Your task to perform on an android device: Search for "razer kraken" on bestbuy.com, select the first entry, add it to the cart, then select checkout. Image 0: 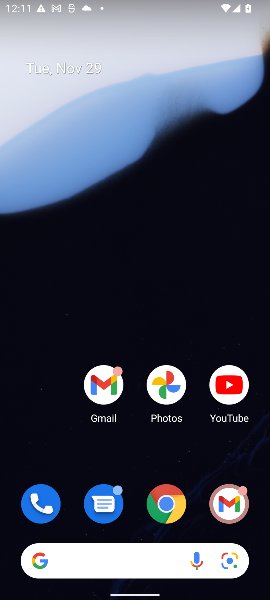
Step 0: click (164, 505)
Your task to perform on an android device: Search for "razer kraken" on bestbuy.com, select the first entry, add it to the cart, then select checkout. Image 1: 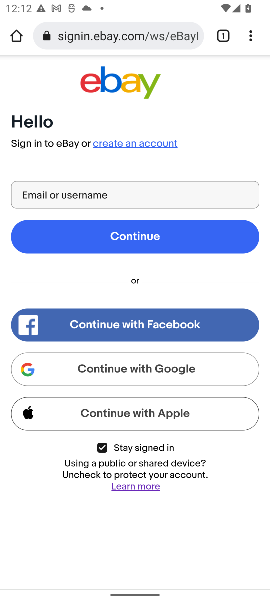
Step 1: click (117, 35)
Your task to perform on an android device: Search for "razer kraken" on bestbuy.com, select the first entry, add it to the cart, then select checkout. Image 2: 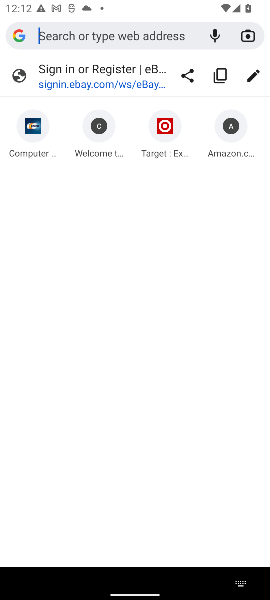
Step 2: type "bestbuy.com"
Your task to perform on an android device: Search for "razer kraken" on bestbuy.com, select the first entry, add it to the cart, then select checkout. Image 3: 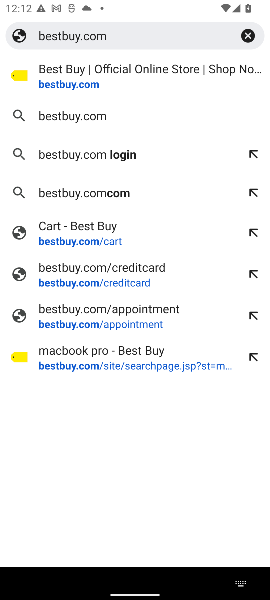
Step 3: click (67, 80)
Your task to perform on an android device: Search for "razer kraken" on bestbuy.com, select the first entry, add it to the cart, then select checkout. Image 4: 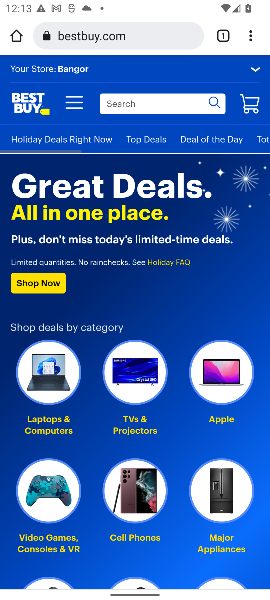
Step 4: click (114, 100)
Your task to perform on an android device: Search for "razer kraken" on bestbuy.com, select the first entry, add it to the cart, then select checkout. Image 5: 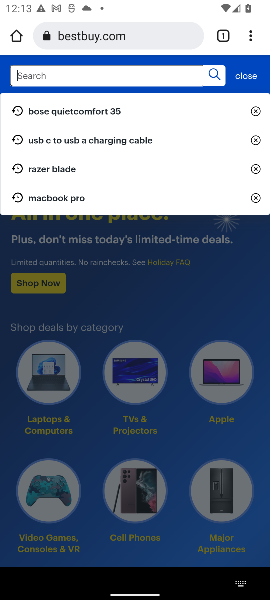
Step 5: type "razer kraken"
Your task to perform on an android device: Search for "razer kraken" on bestbuy.com, select the first entry, add it to the cart, then select checkout. Image 6: 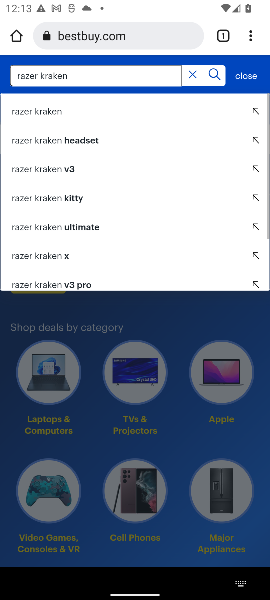
Step 6: click (33, 114)
Your task to perform on an android device: Search for "razer kraken" on bestbuy.com, select the first entry, add it to the cart, then select checkout. Image 7: 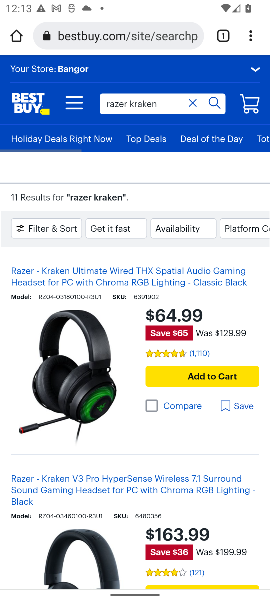
Step 7: click (210, 375)
Your task to perform on an android device: Search for "razer kraken" on bestbuy.com, select the first entry, add it to the cart, then select checkout. Image 8: 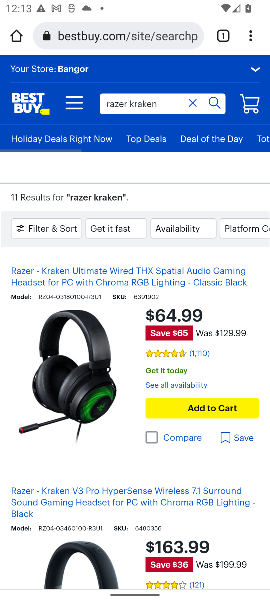
Step 8: click (208, 381)
Your task to perform on an android device: Search for "razer kraken" on bestbuy.com, select the first entry, add it to the cart, then select checkout. Image 9: 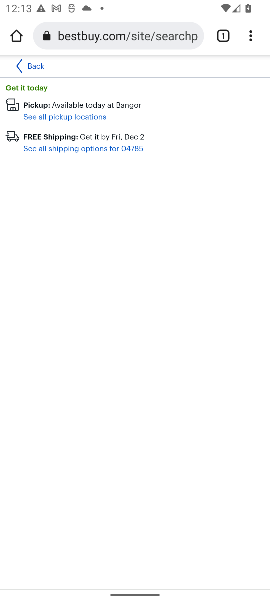
Step 9: click (207, 403)
Your task to perform on an android device: Search for "razer kraken" on bestbuy.com, select the first entry, add it to the cart, then select checkout. Image 10: 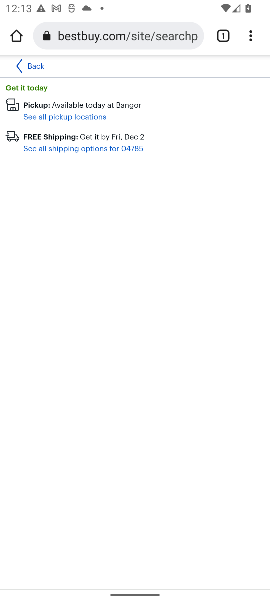
Step 10: click (16, 68)
Your task to perform on an android device: Search for "razer kraken" on bestbuy.com, select the first entry, add it to the cart, then select checkout. Image 11: 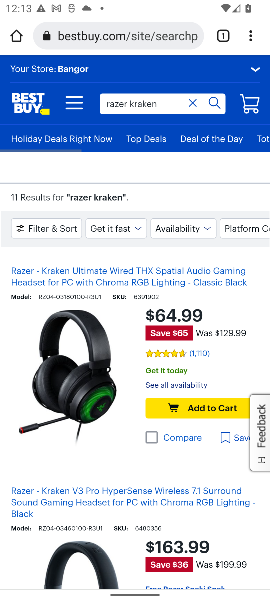
Step 11: click (165, 406)
Your task to perform on an android device: Search for "razer kraken" on bestbuy.com, select the first entry, add it to the cart, then select checkout. Image 12: 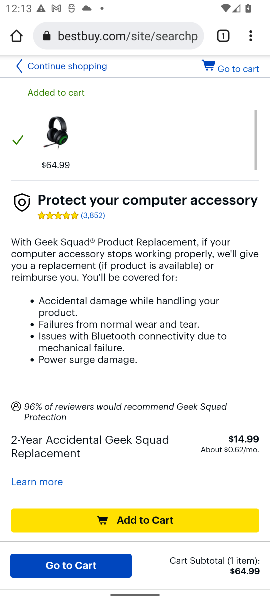
Step 12: click (229, 66)
Your task to perform on an android device: Search for "razer kraken" on bestbuy.com, select the first entry, add it to the cart, then select checkout. Image 13: 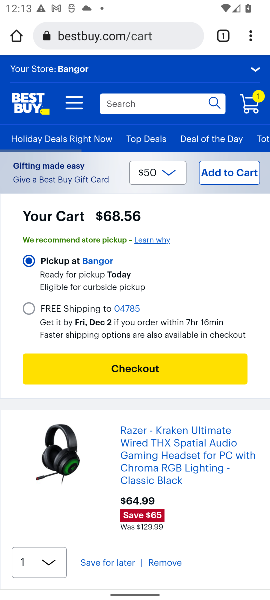
Step 13: click (128, 365)
Your task to perform on an android device: Search for "razer kraken" on bestbuy.com, select the first entry, add it to the cart, then select checkout. Image 14: 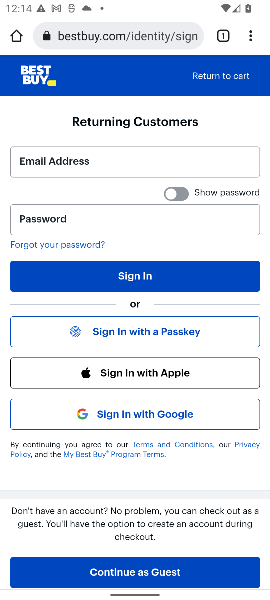
Step 14: task complete